Your task to perform on an android device: find which apps use the phone's location Image 0: 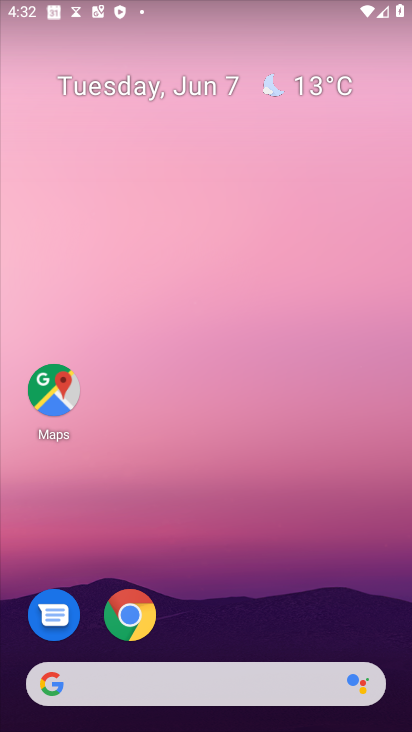
Step 0: drag from (298, 711) to (148, 0)
Your task to perform on an android device: find which apps use the phone's location Image 1: 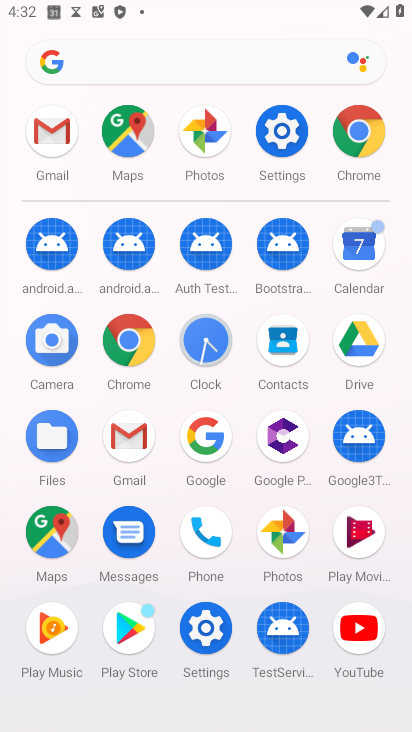
Step 1: click (209, 627)
Your task to perform on an android device: find which apps use the phone's location Image 2: 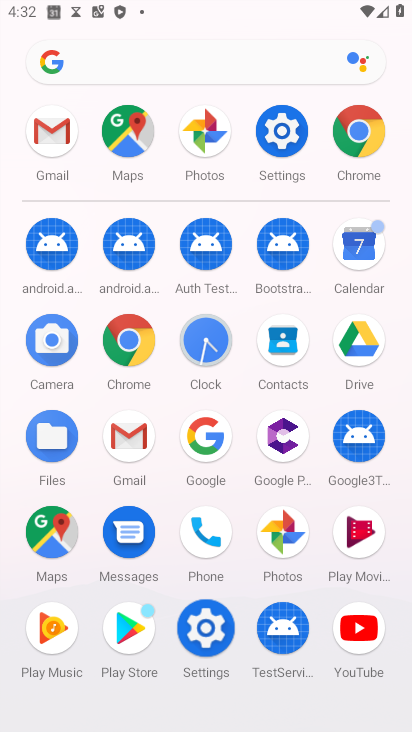
Step 2: click (208, 626)
Your task to perform on an android device: find which apps use the phone's location Image 3: 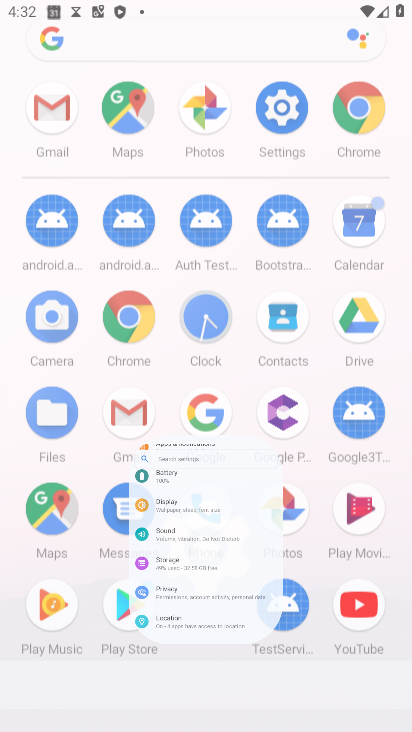
Step 3: click (207, 626)
Your task to perform on an android device: find which apps use the phone's location Image 4: 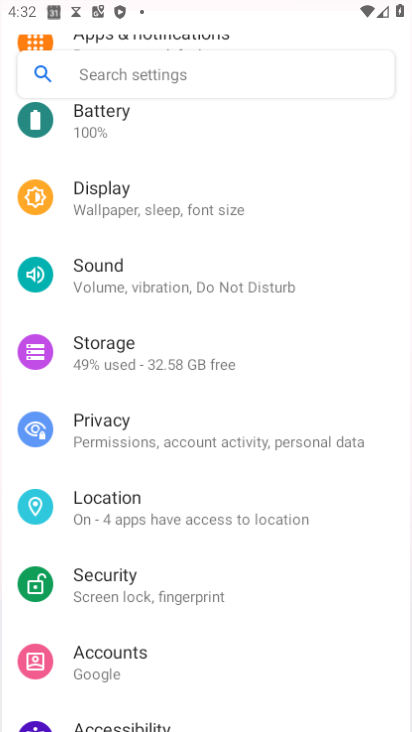
Step 4: click (205, 625)
Your task to perform on an android device: find which apps use the phone's location Image 5: 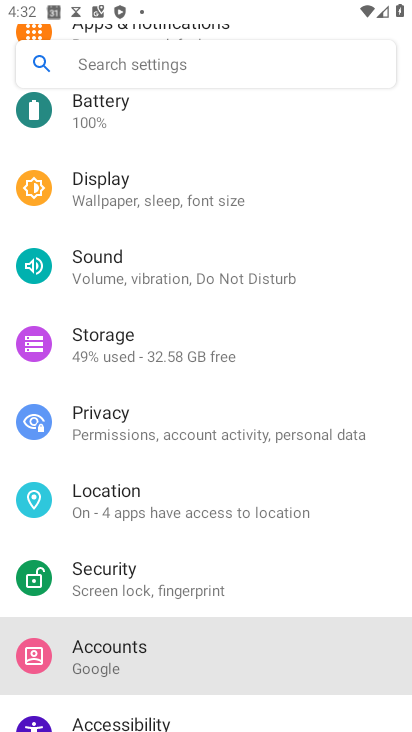
Step 5: click (204, 624)
Your task to perform on an android device: find which apps use the phone's location Image 6: 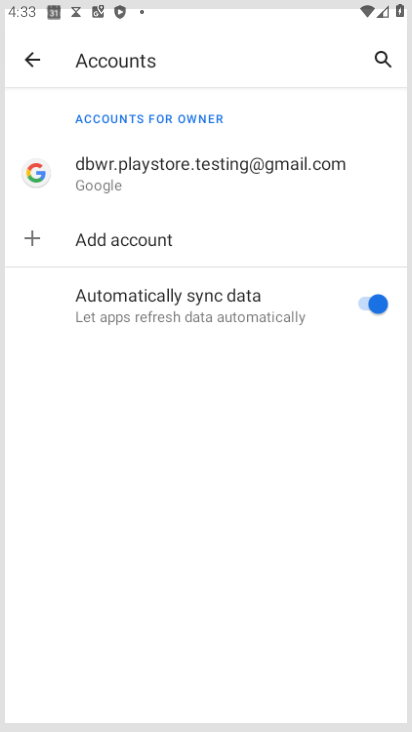
Step 6: click (204, 620)
Your task to perform on an android device: find which apps use the phone's location Image 7: 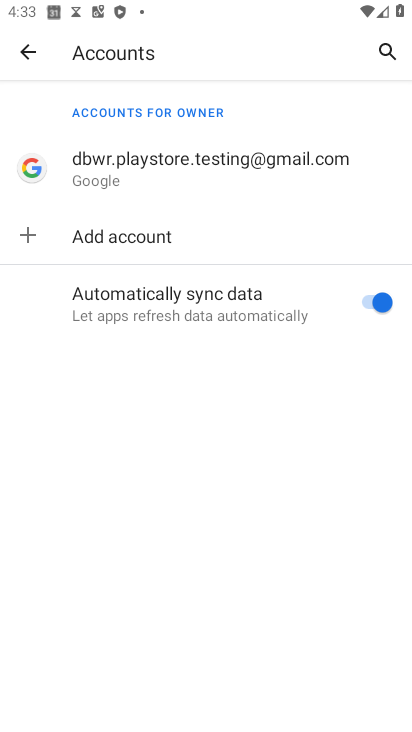
Step 7: drag from (121, 555) to (101, 105)
Your task to perform on an android device: find which apps use the phone's location Image 8: 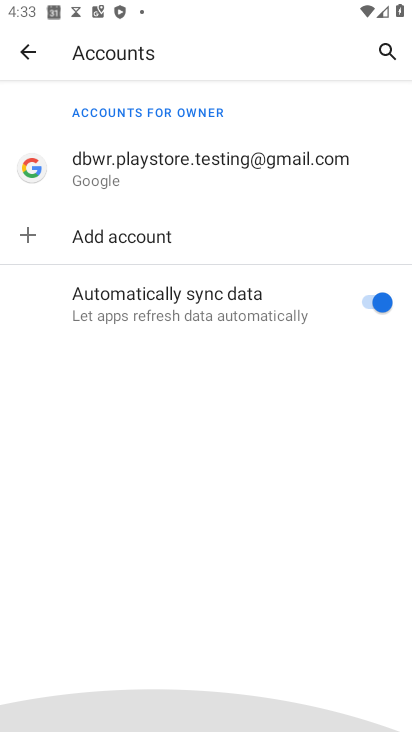
Step 8: drag from (154, 434) to (35, 5)
Your task to perform on an android device: find which apps use the phone's location Image 9: 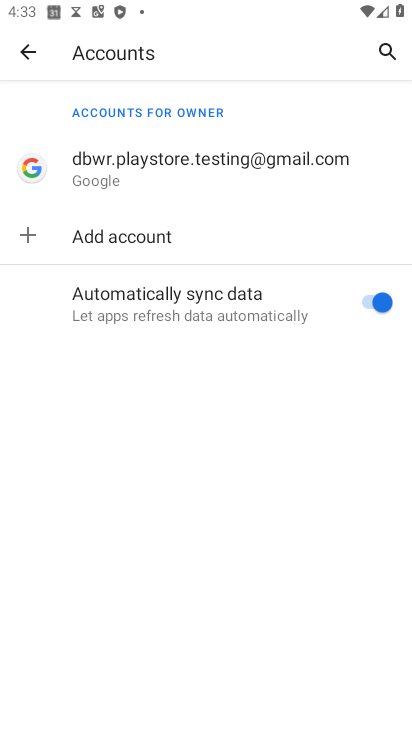
Step 9: click (22, 54)
Your task to perform on an android device: find which apps use the phone's location Image 10: 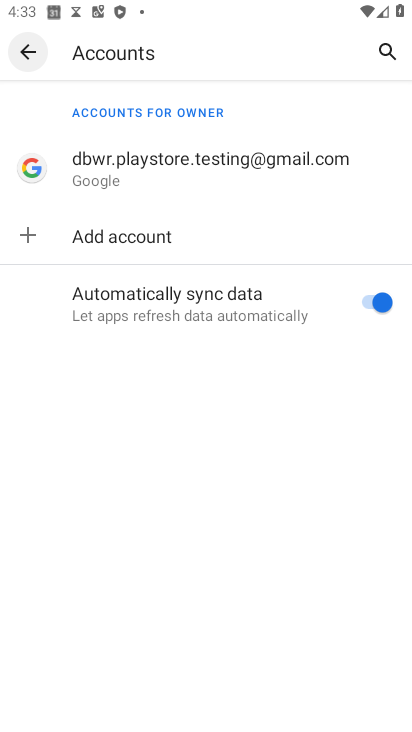
Step 10: click (22, 54)
Your task to perform on an android device: find which apps use the phone's location Image 11: 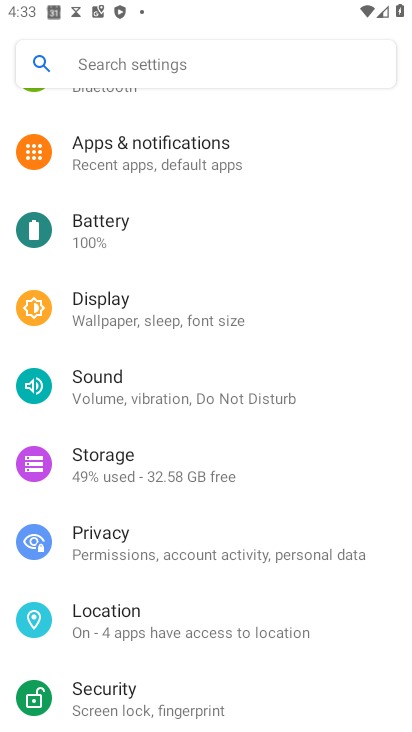
Step 11: drag from (171, 599) to (104, 220)
Your task to perform on an android device: find which apps use the phone's location Image 12: 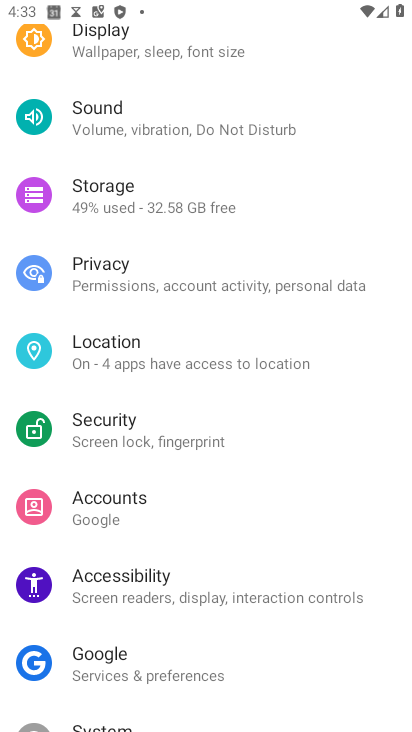
Step 12: click (113, 351)
Your task to perform on an android device: find which apps use the phone's location Image 13: 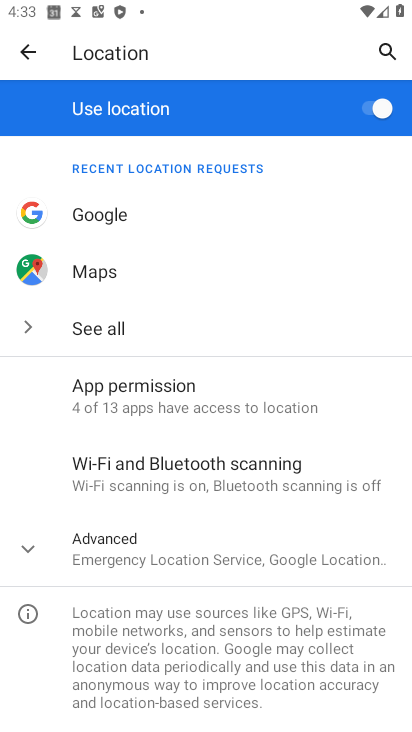
Step 13: click (111, 392)
Your task to perform on an android device: find which apps use the phone's location Image 14: 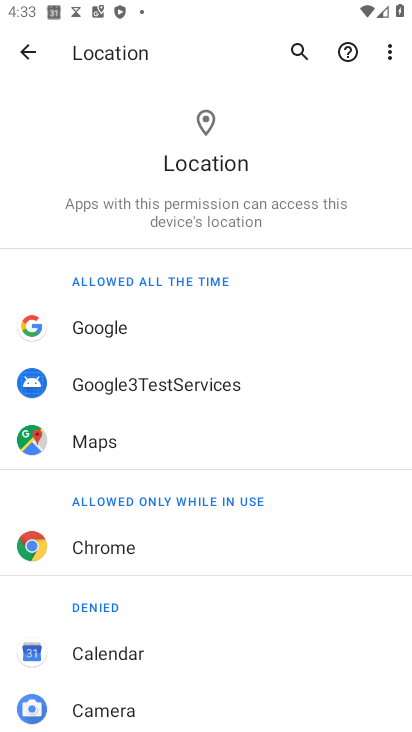
Step 14: task complete